Your task to perform on an android device: Open the calendar app, open the side menu, and click the "Day" option Image 0: 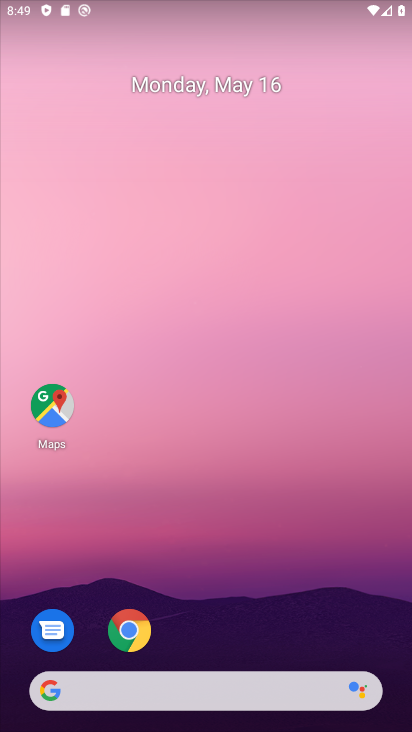
Step 0: drag from (216, 672) to (250, 141)
Your task to perform on an android device: Open the calendar app, open the side menu, and click the "Day" option Image 1: 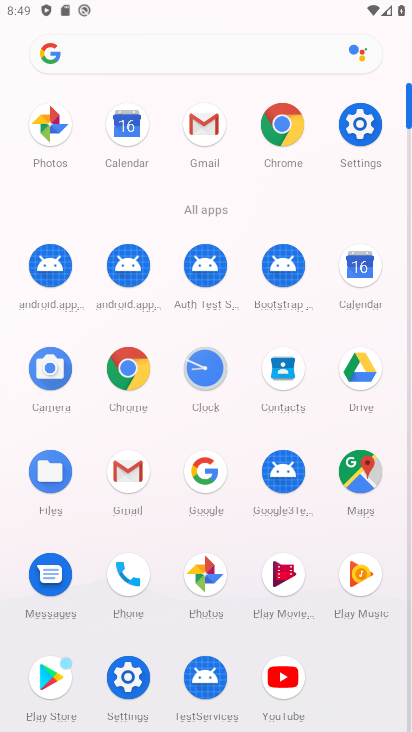
Step 1: click (365, 285)
Your task to perform on an android device: Open the calendar app, open the side menu, and click the "Day" option Image 2: 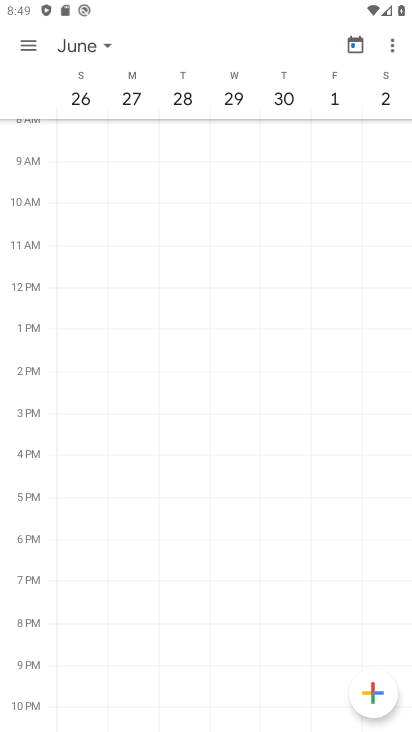
Step 2: click (41, 43)
Your task to perform on an android device: Open the calendar app, open the side menu, and click the "Day" option Image 3: 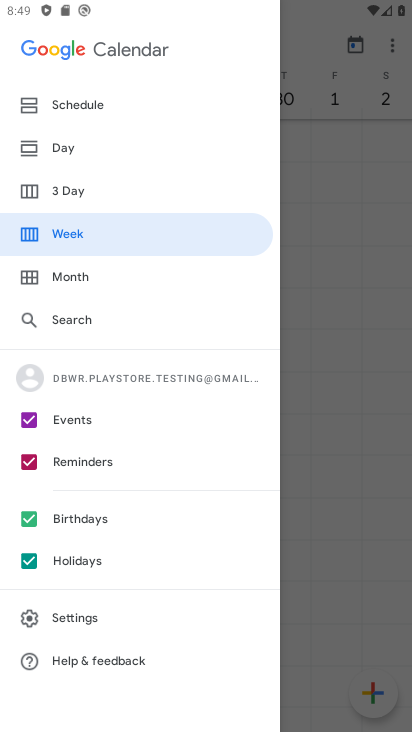
Step 3: click (109, 163)
Your task to perform on an android device: Open the calendar app, open the side menu, and click the "Day" option Image 4: 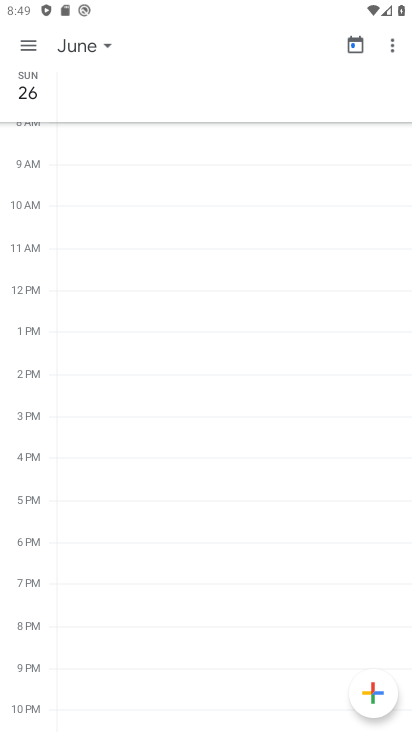
Step 4: task complete